Your task to perform on an android device: clear all cookies in the chrome app Image 0: 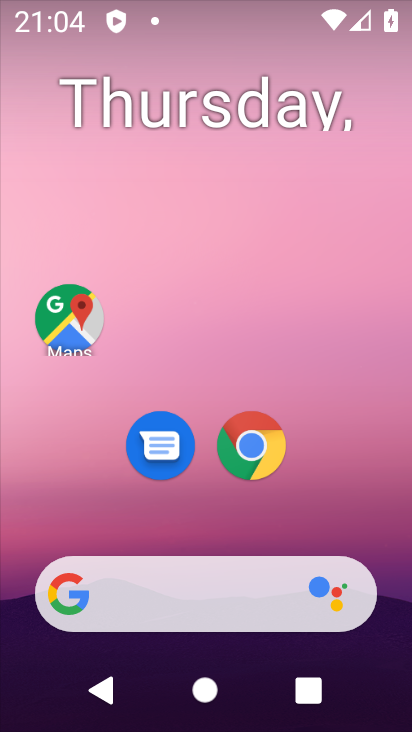
Step 0: click (247, 442)
Your task to perform on an android device: clear all cookies in the chrome app Image 1: 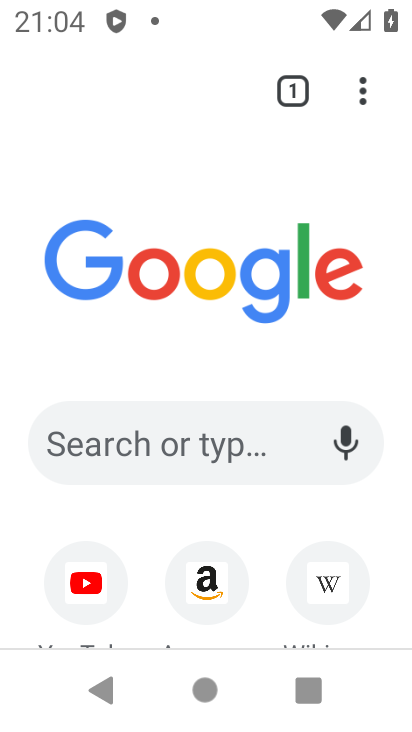
Step 1: click (360, 86)
Your task to perform on an android device: clear all cookies in the chrome app Image 2: 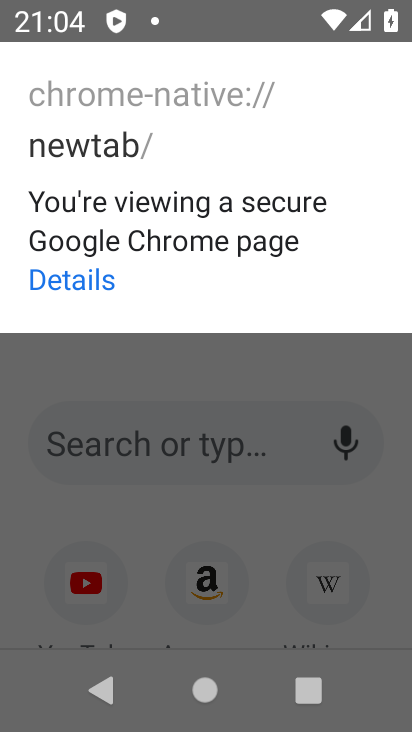
Step 2: press back button
Your task to perform on an android device: clear all cookies in the chrome app Image 3: 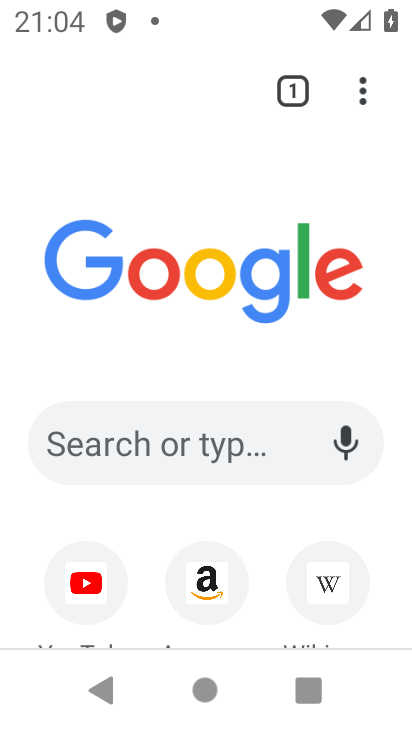
Step 3: click (357, 87)
Your task to perform on an android device: clear all cookies in the chrome app Image 4: 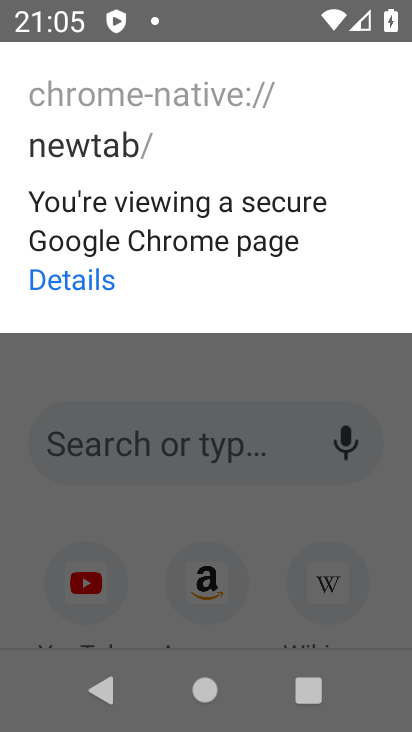
Step 4: press back button
Your task to perform on an android device: clear all cookies in the chrome app Image 5: 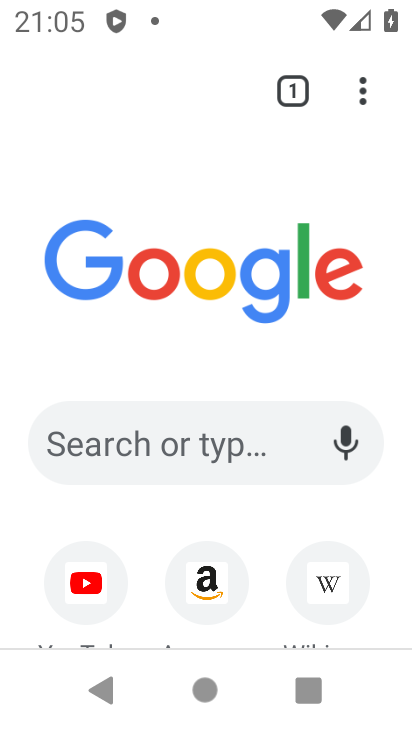
Step 5: click (363, 92)
Your task to perform on an android device: clear all cookies in the chrome app Image 6: 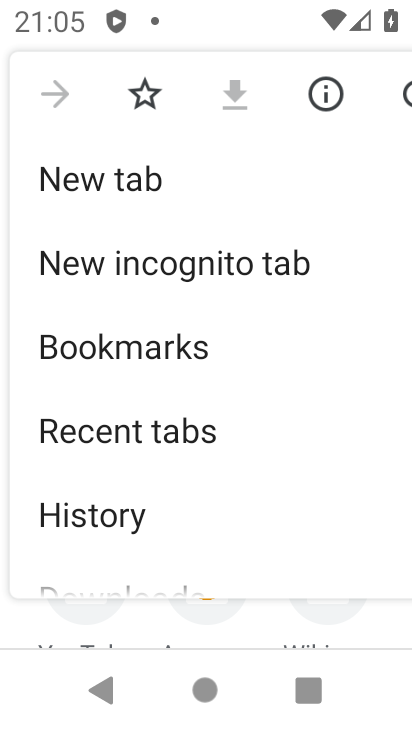
Step 6: click (151, 524)
Your task to perform on an android device: clear all cookies in the chrome app Image 7: 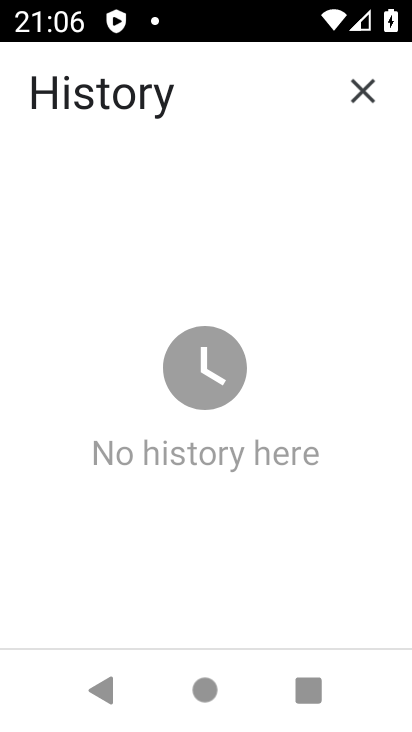
Step 7: task complete